Your task to perform on an android device: Toggle the flashlight Image 0: 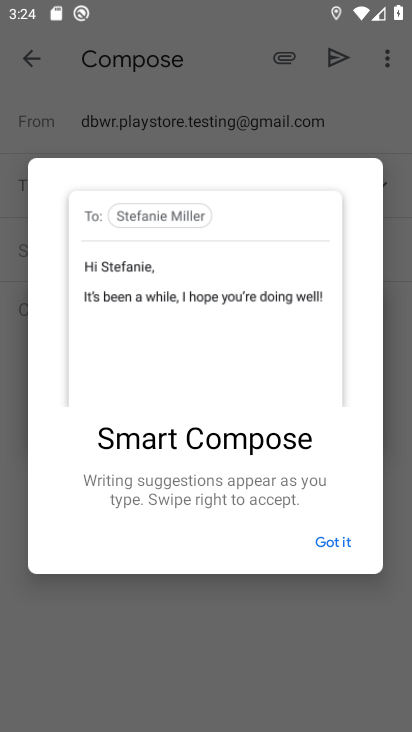
Step 0: press home button
Your task to perform on an android device: Toggle the flashlight Image 1: 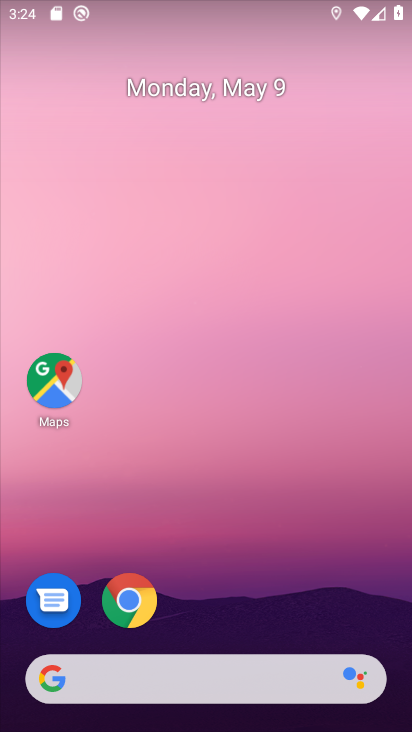
Step 1: press home button
Your task to perform on an android device: Toggle the flashlight Image 2: 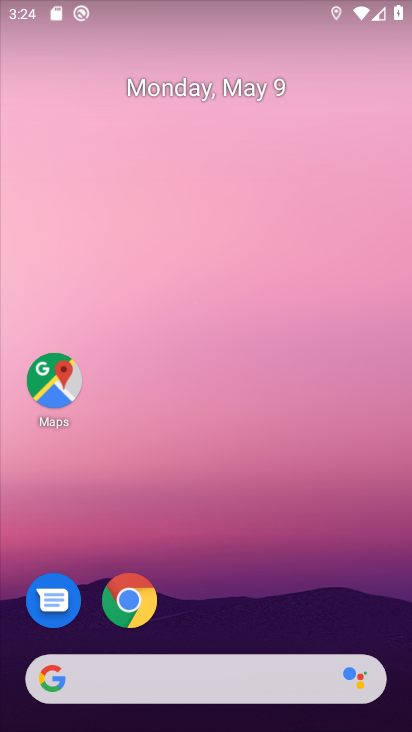
Step 2: drag from (247, 589) to (347, 60)
Your task to perform on an android device: Toggle the flashlight Image 3: 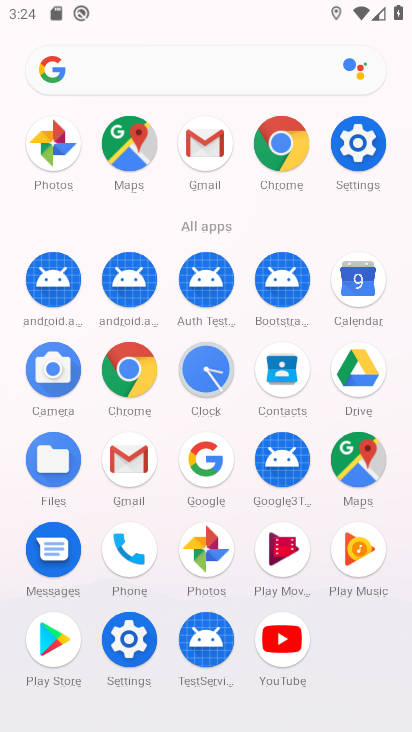
Step 3: click (377, 157)
Your task to perform on an android device: Toggle the flashlight Image 4: 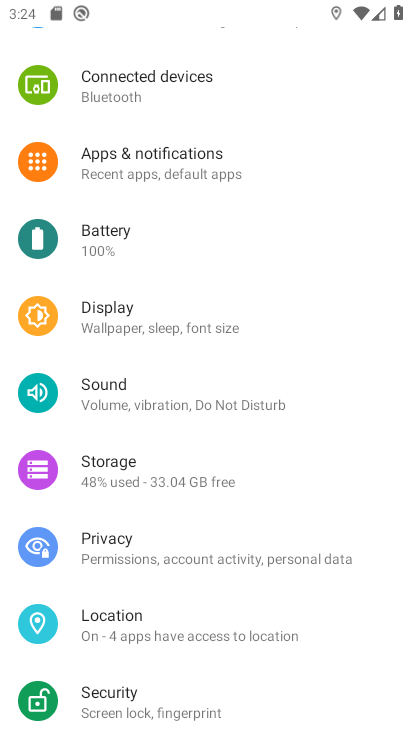
Step 4: drag from (261, 154) to (252, 459)
Your task to perform on an android device: Toggle the flashlight Image 5: 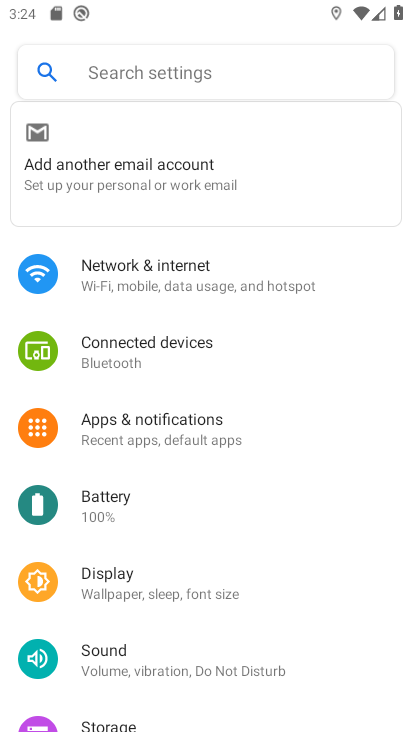
Step 5: click (253, 61)
Your task to perform on an android device: Toggle the flashlight Image 6: 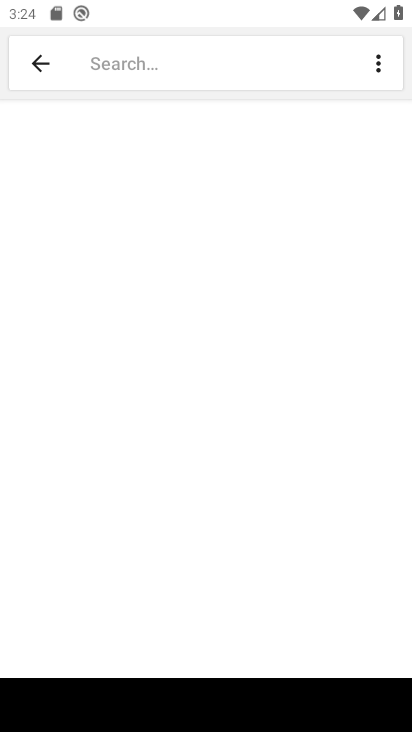
Step 6: type "flashlight"
Your task to perform on an android device: Toggle the flashlight Image 7: 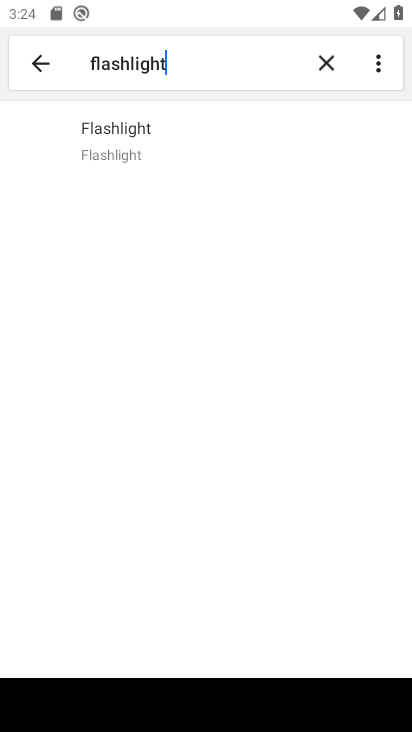
Step 7: click (170, 141)
Your task to perform on an android device: Toggle the flashlight Image 8: 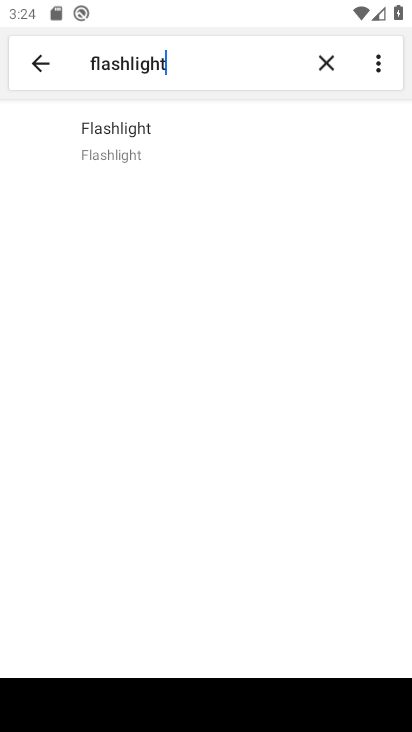
Step 8: click (168, 151)
Your task to perform on an android device: Toggle the flashlight Image 9: 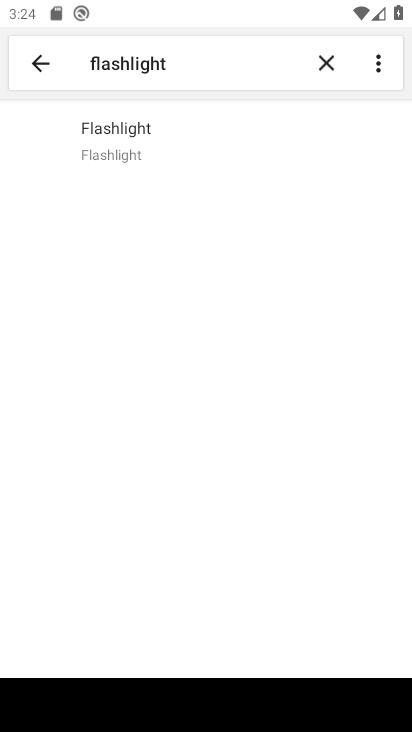
Step 9: click (168, 151)
Your task to perform on an android device: Toggle the flashlight Image 10: 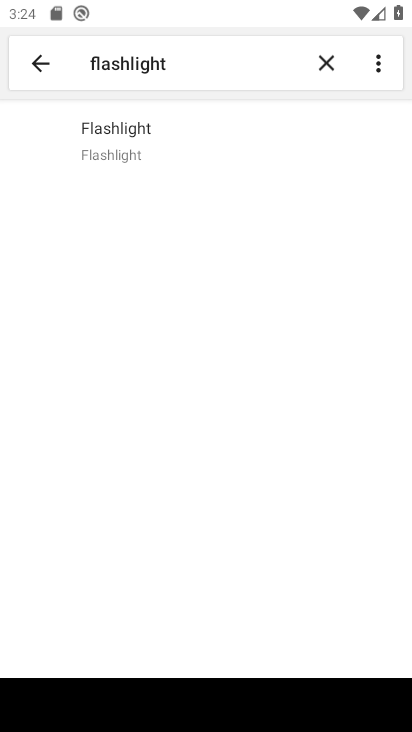
Step 10: task complete